Your task to perform on an android device: Open the calendar and show me this week's events? Image 0: 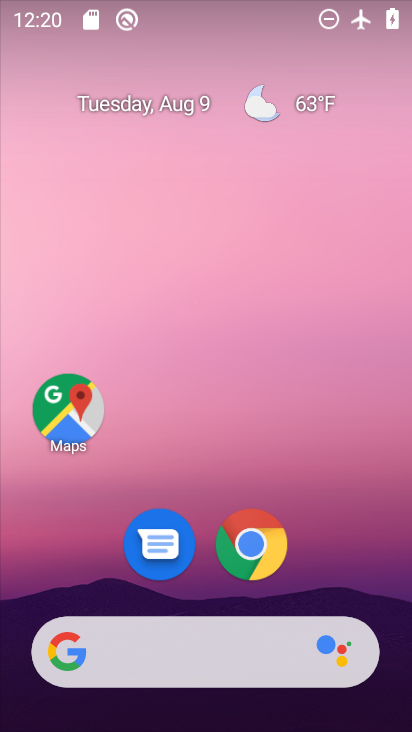
Step 0: drag from (201, 529) to (206, 61)
Your task to perform on an android device: Open the calendar and show me this week's events? Image 1: 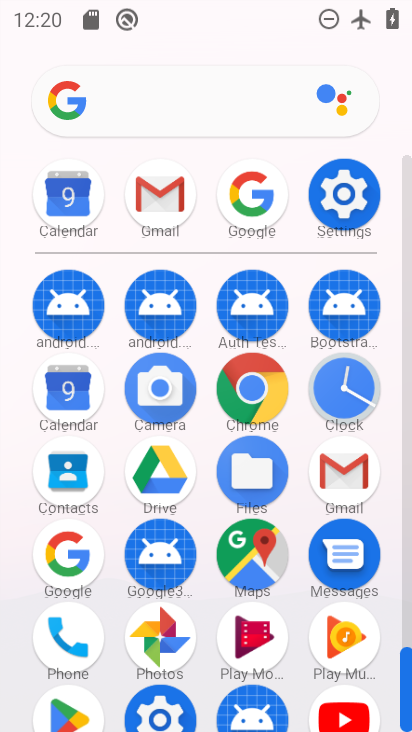
Step 1: click (70, 197)
Your task to perform on an android device: Open the calendar and show me this week's events? Image 2: 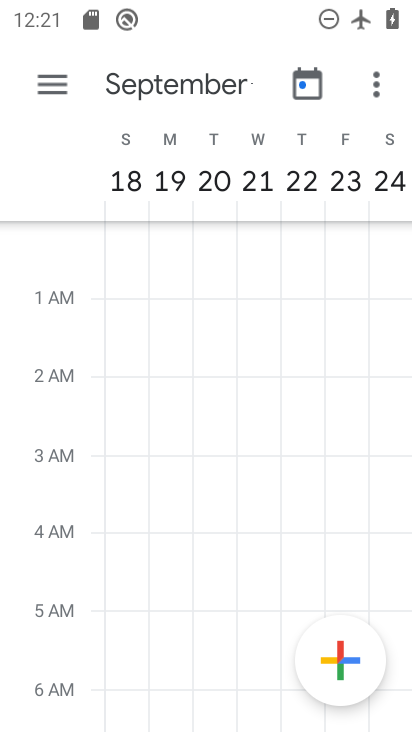
Step 2: click (311, 87)
Your task to perform on an android device: Open the calendar and show me this week's events? Image 3: 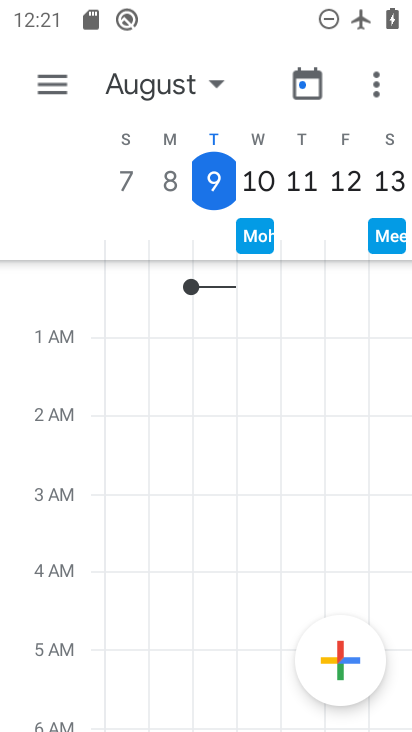
Step 3: click (219, 86)
Your task to perform on an android device: Open the calendar and show me this week's events? Image 4: 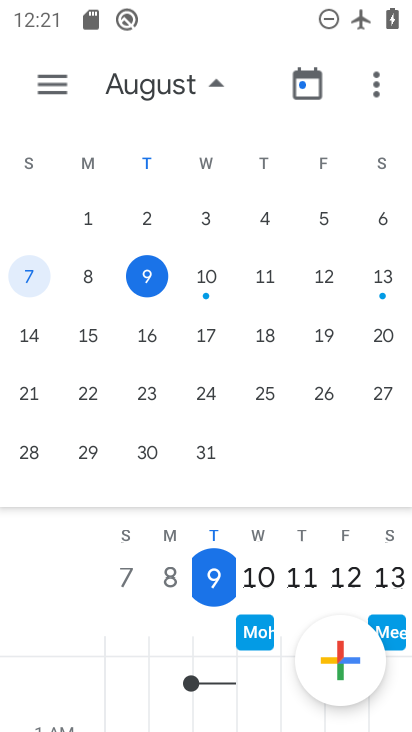
Step 4: click (51, 83)
Your task to perform on an android device: Open the calendar and show me this week's events? Image 5: 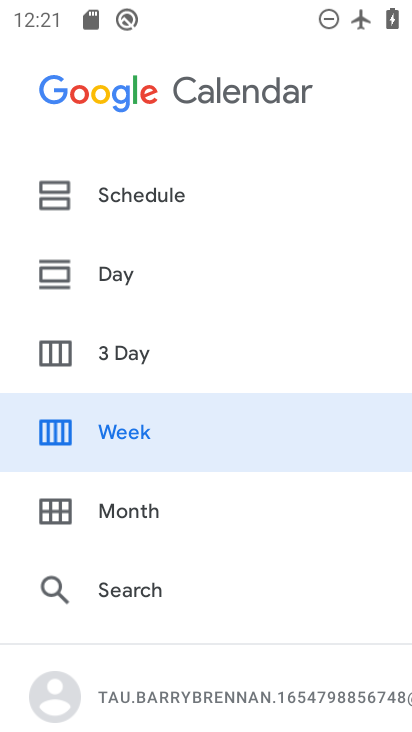
Step 5: click (147, 202)
Your task to perform on an android device: Open the calendar and show me this week's events? Image 6: 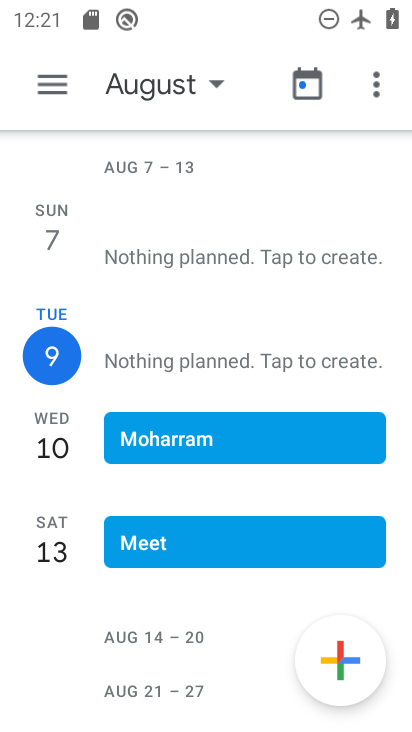
Step 6: task complete